Your task to perform on an android device: toggle pop-ups in chrome Image 0: 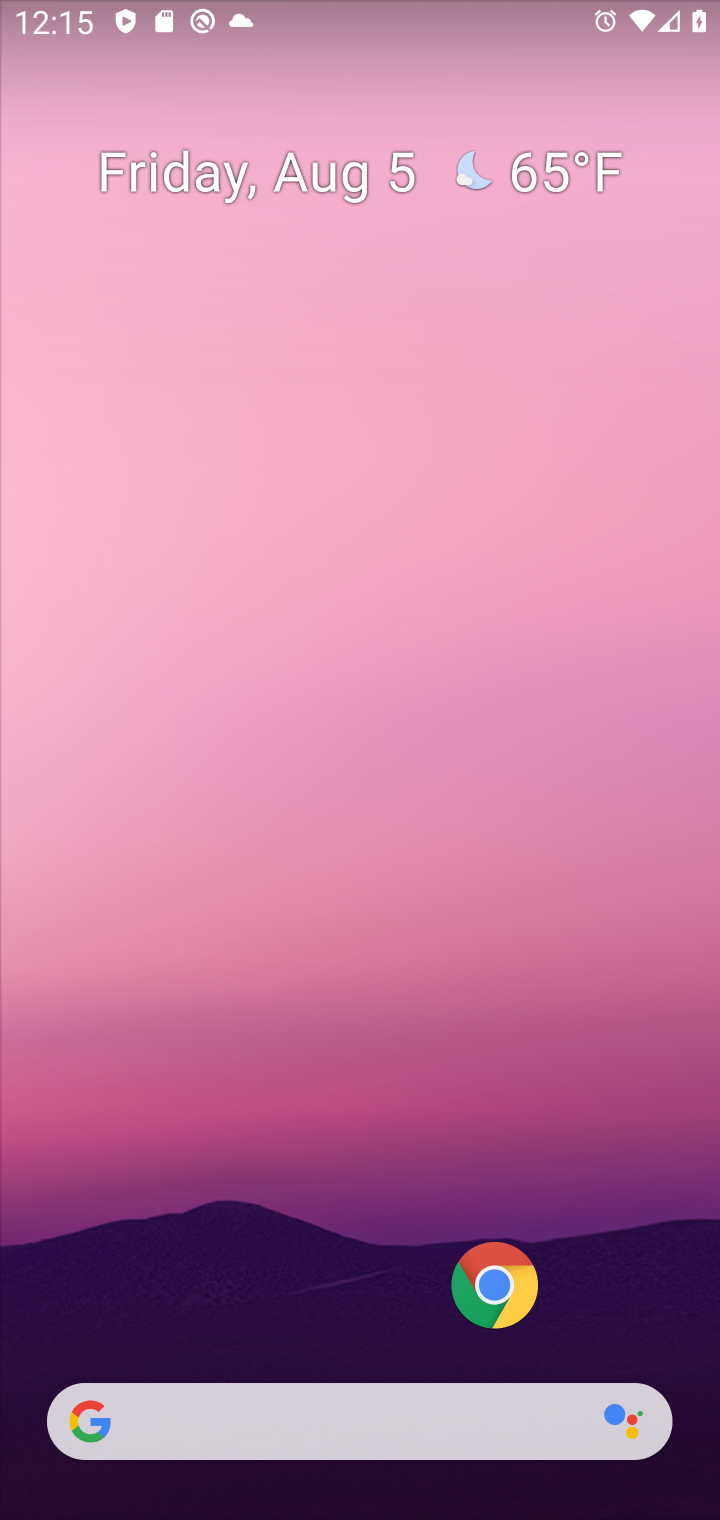
Step 0: press home button
Your task to perform on an android device: toggle pop-ups in chrome Image 1: 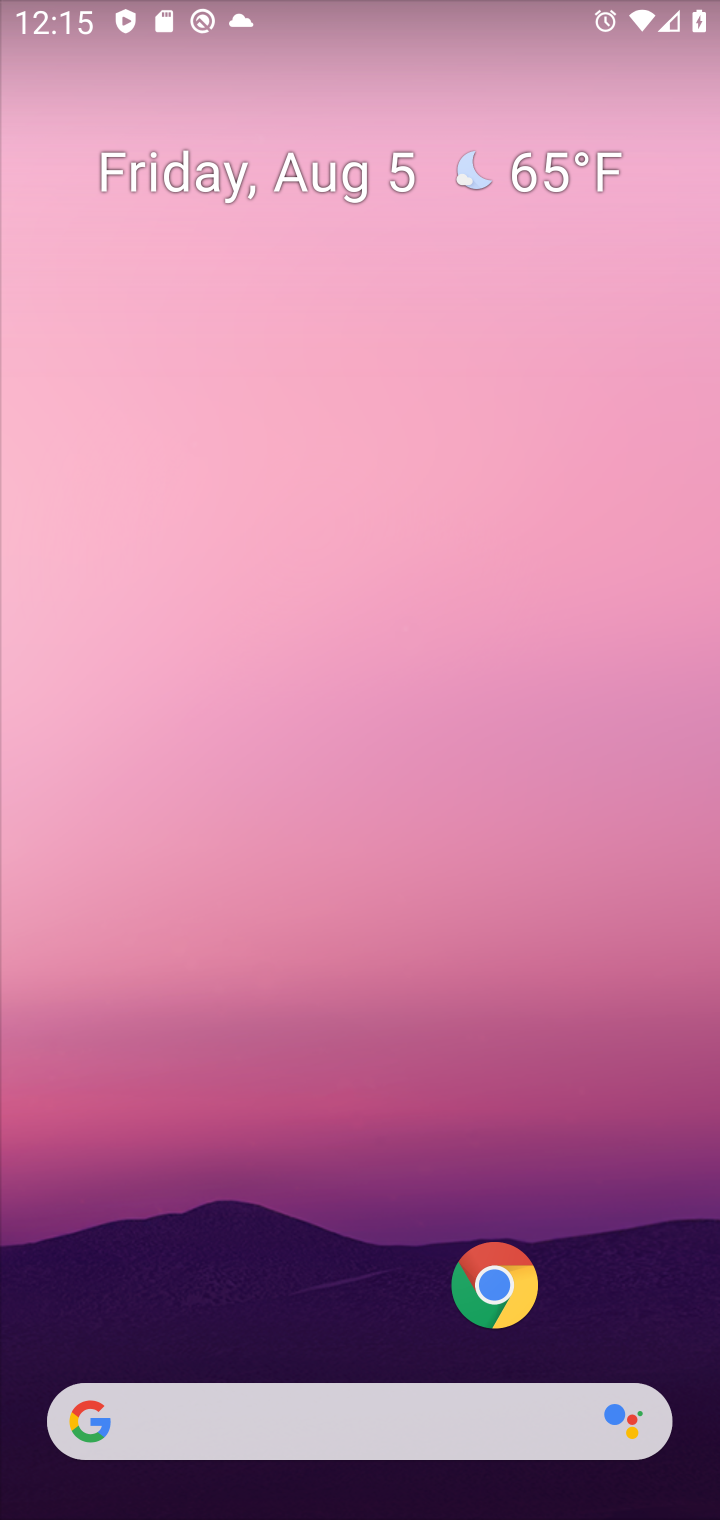
Step 1: drag from (379, 1158) to (344, 801)
Your task to perform on an android device: toggle pop-ups in chrome Image 2: 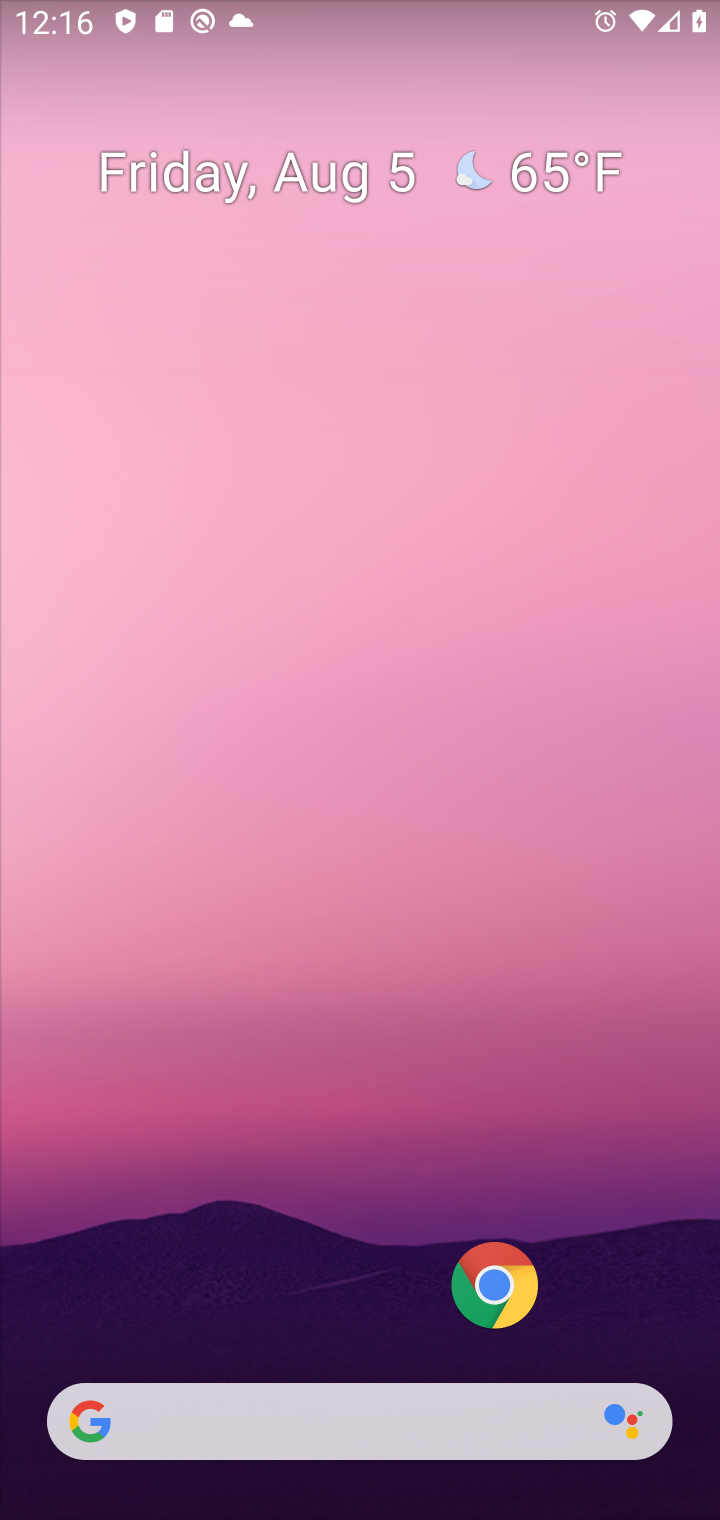
Step 2: click (498, 1287)
Your task to perform on an android device: toggle pop-ups in chrome Image 3: 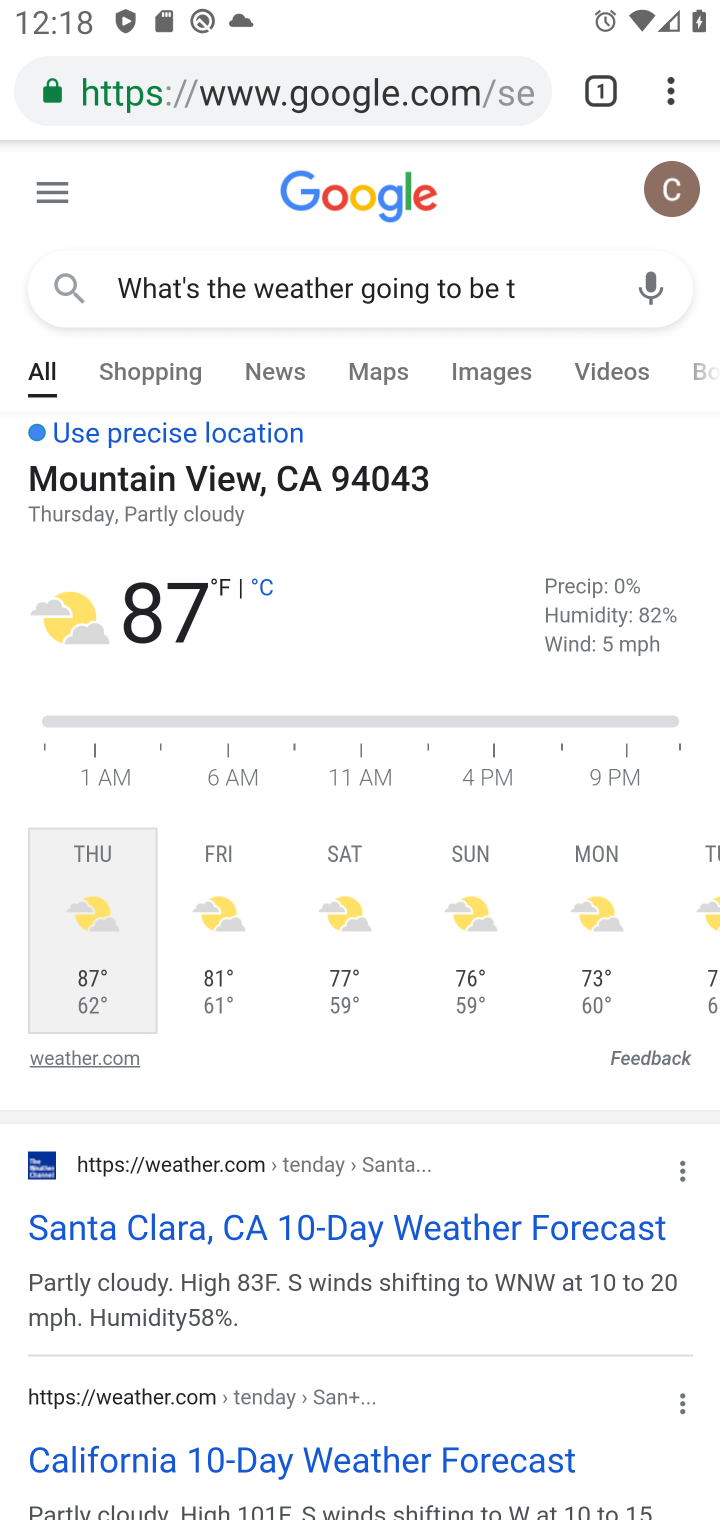
Step 3: drag from (662, 88) to (392, 1123)
Your task to perform on an android device: toggle pop-ups in chrome Image 4: 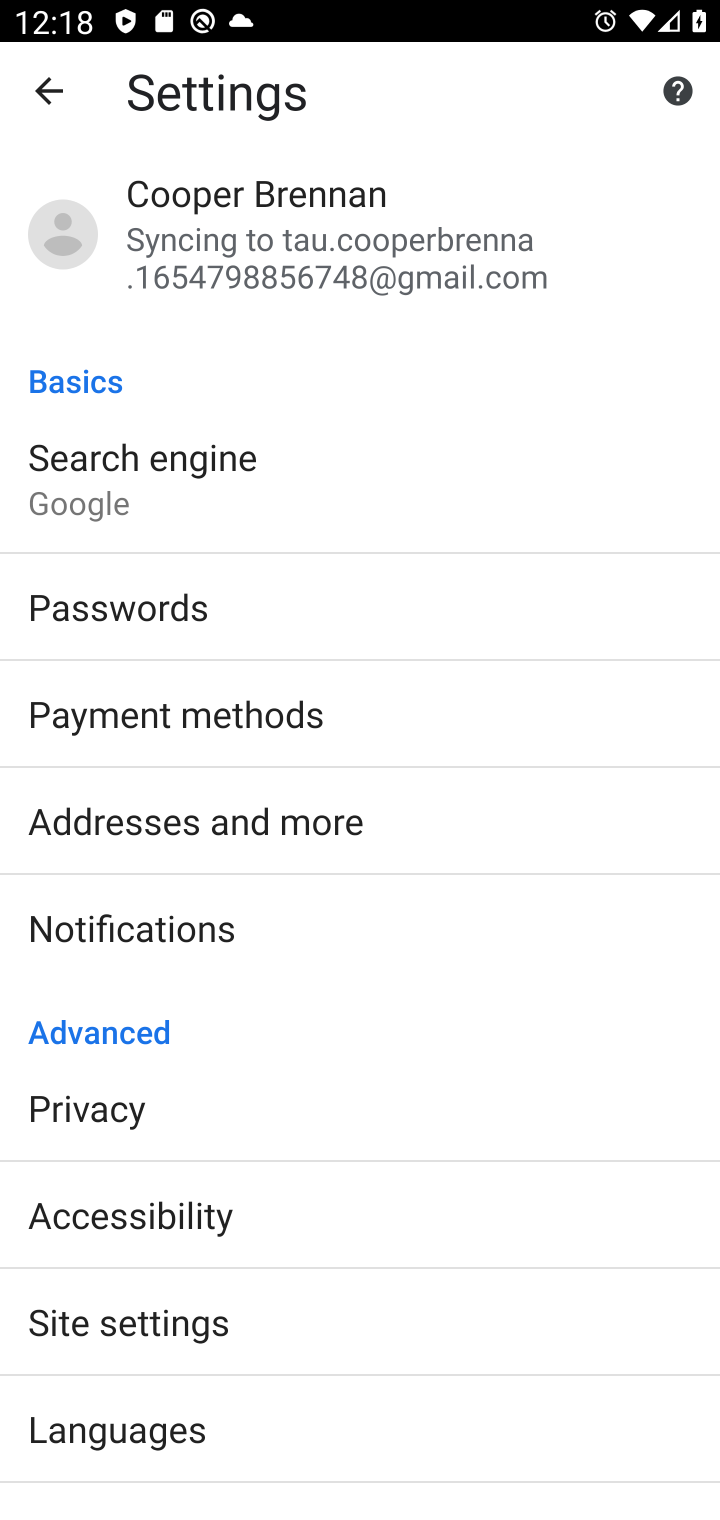
Step 4: drag from (201, 1320) to (205, 1101)
Your task to perform on an android device: toggle pop-ups in chrome Image 5: 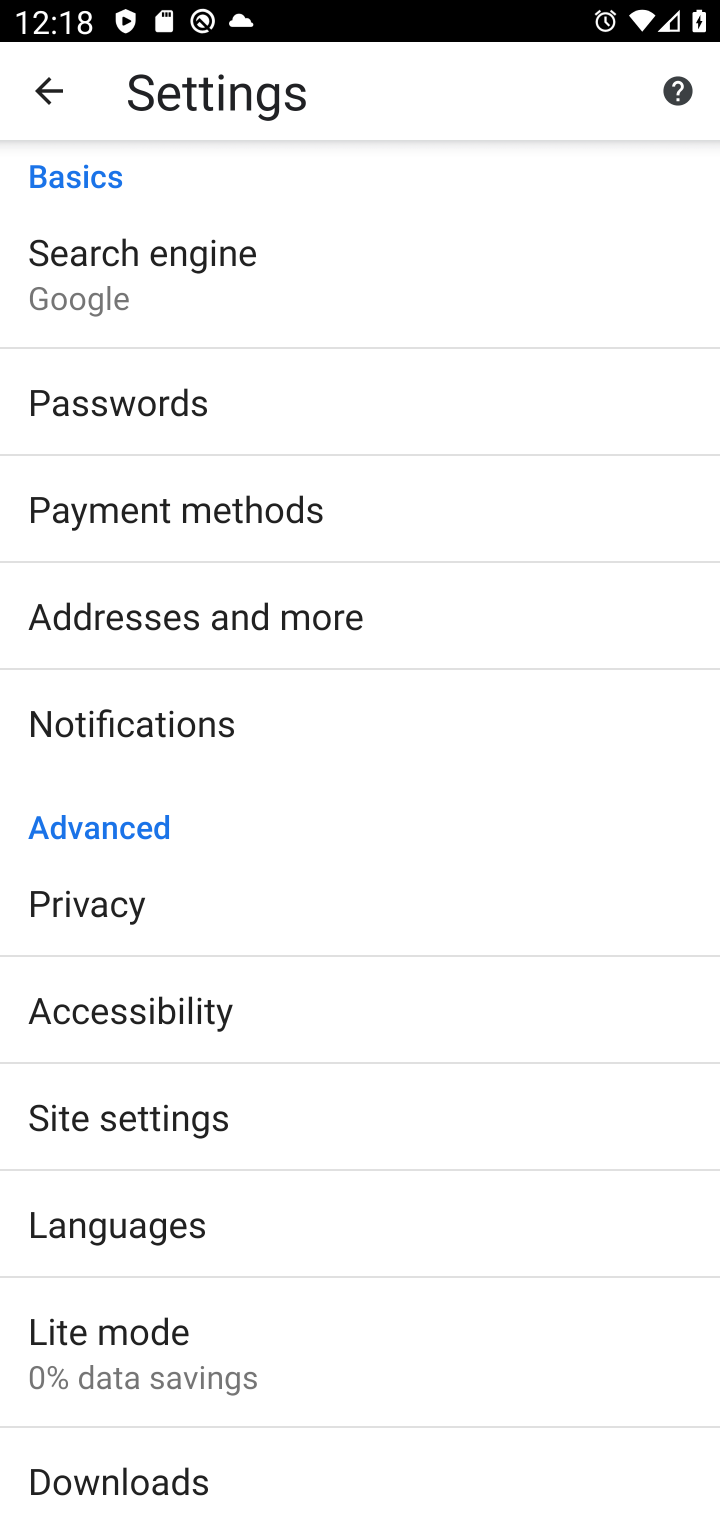
Step 5: click (201, 1119)
Your task to perform on an android device: toggle pop-ups in chrome Image 6: 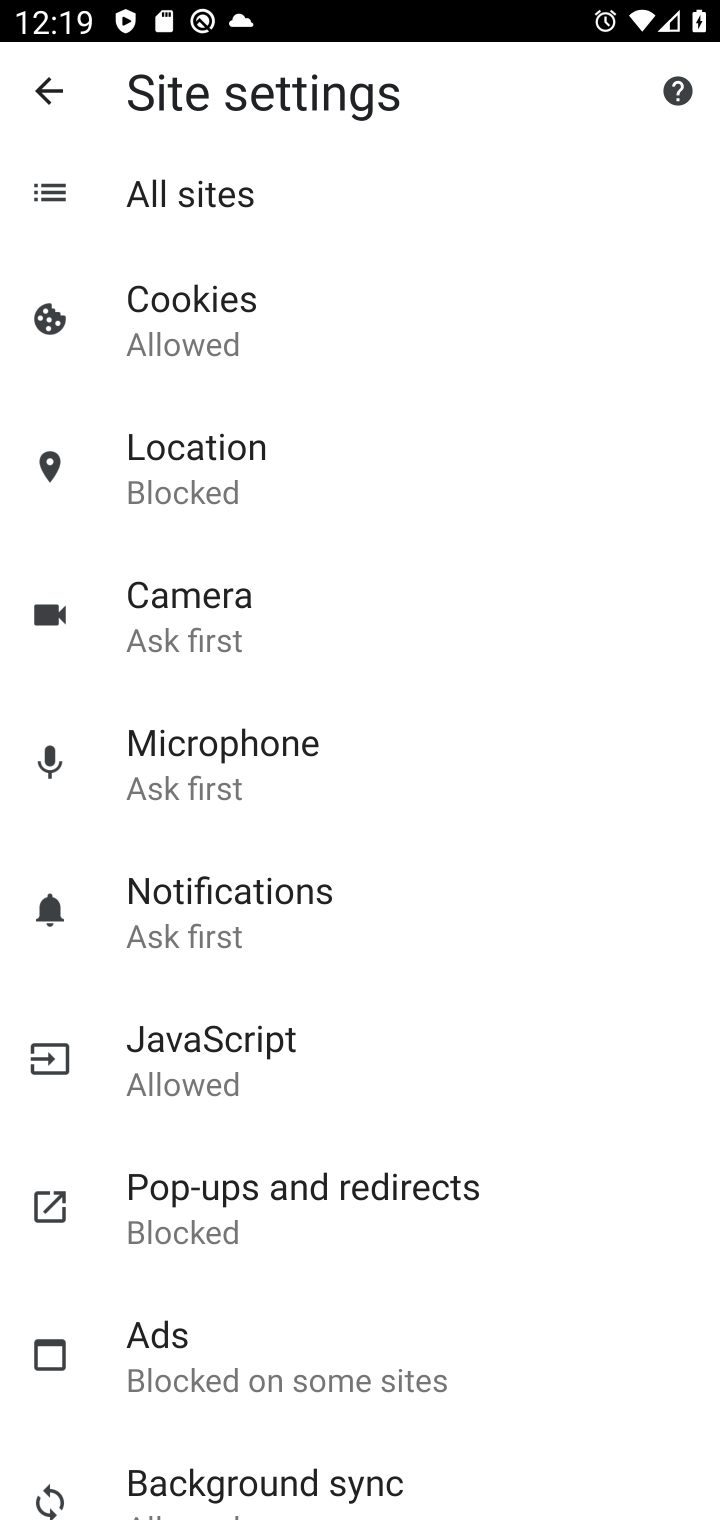
Step 6: click (315, 1245)
Your task to perform on an android device: toggle pop-ups in chrome Image 7: 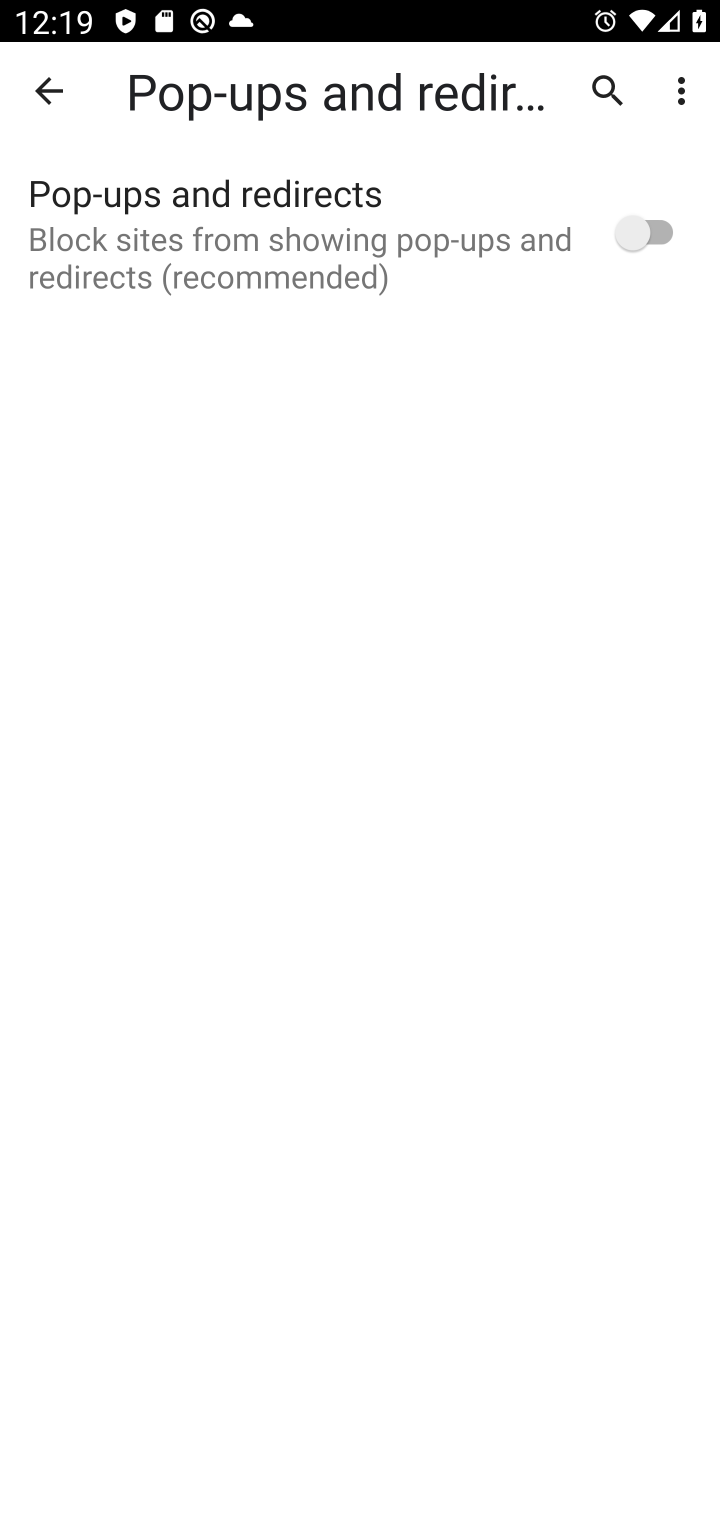
Step 7: click (445, 203)
Your task to perform on an android device: toggle pop-ups in chrome Image 8: 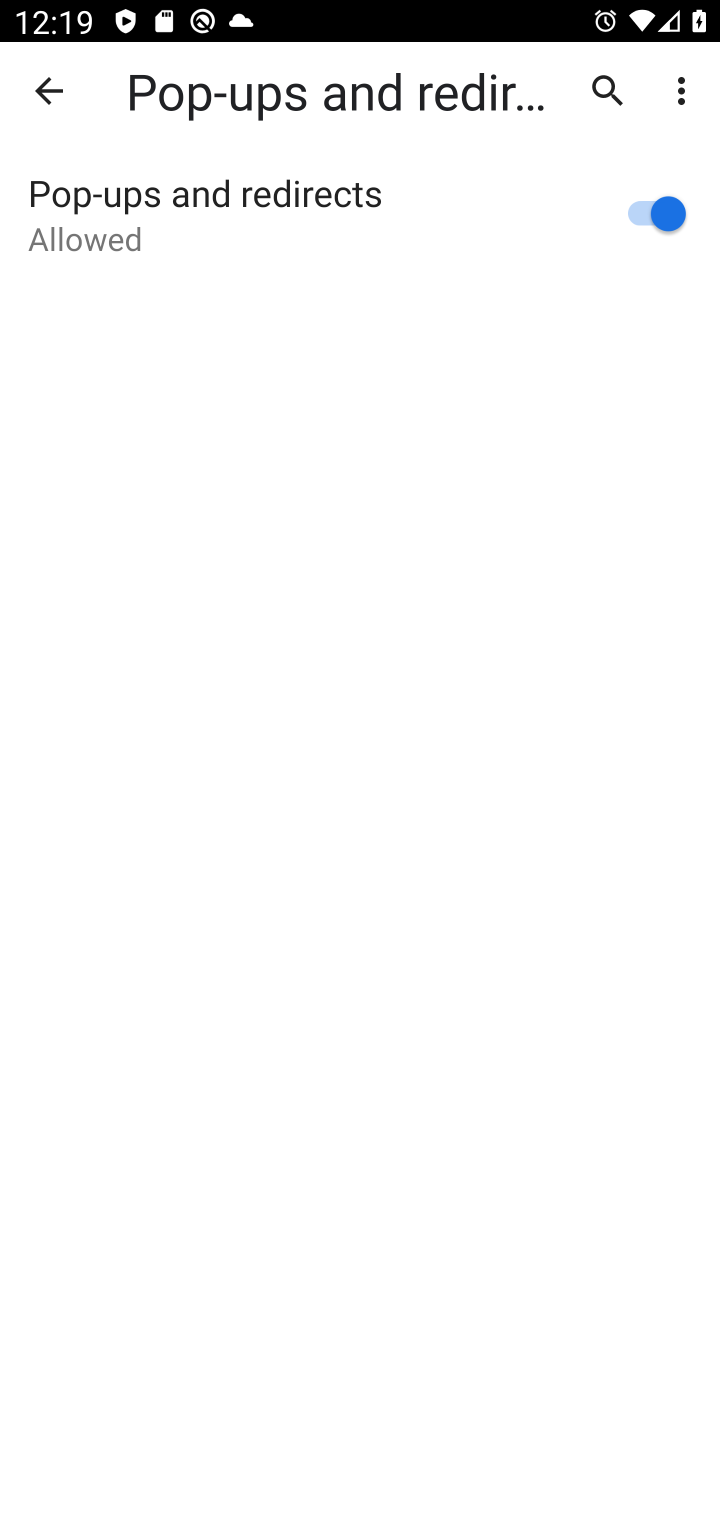
Step 8: task complete